Your task to perform on an android device: visit the assistant section in the google photos Image 0: 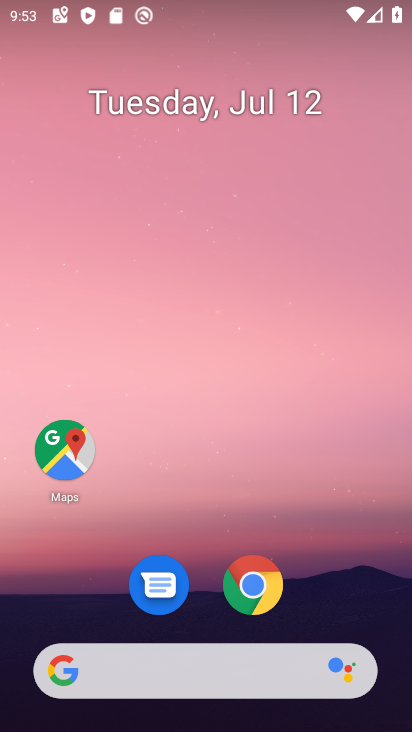
Step 0: drag from (157, 674) to (294, 146)
Your task to perform on an android device: visit the assistant section in the google photos Image 1: 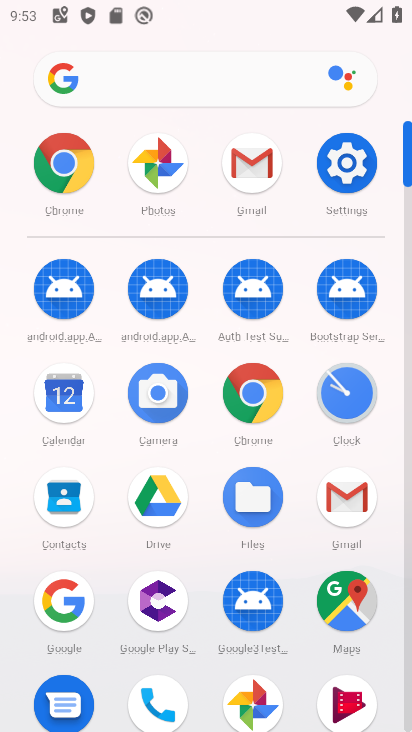
Step 1: click (160, 166)
Your task to perform on an android device: visit the assistant section in the google photos Image 2: 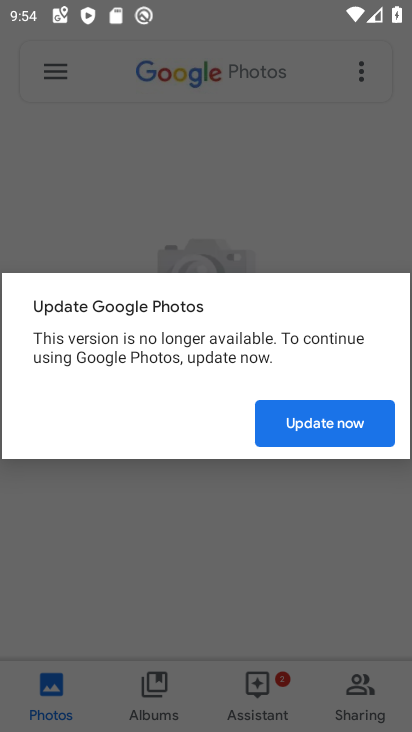
Step 2: click (346, 433)
Your task to perform on an android device: visit the assistant section in the google photos Image 3: 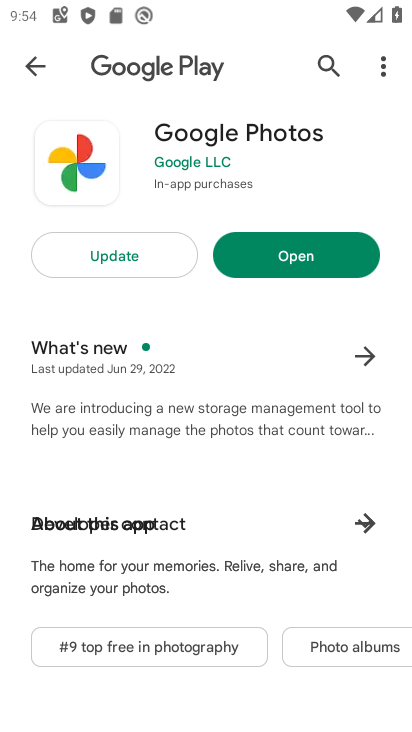
Step 3: click (307, 254)
Your task to perform on an android device: visit the assistant section in the google photos Image 4: 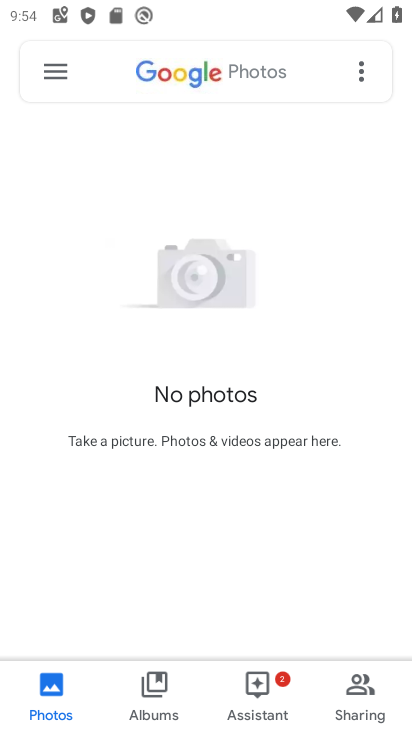
Step 4: click (276, 692)
Your task to perform on an android device: visit the assistant section in the google photos Image 5: 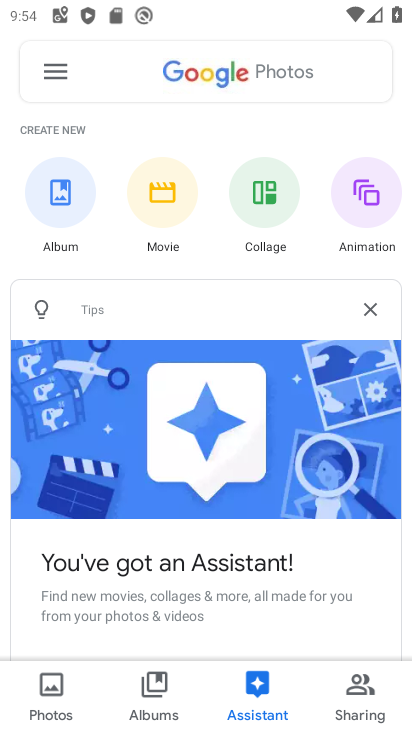
Step 5: task complete